Your task to perform on an android device: Go to accessibility settings Image 0: 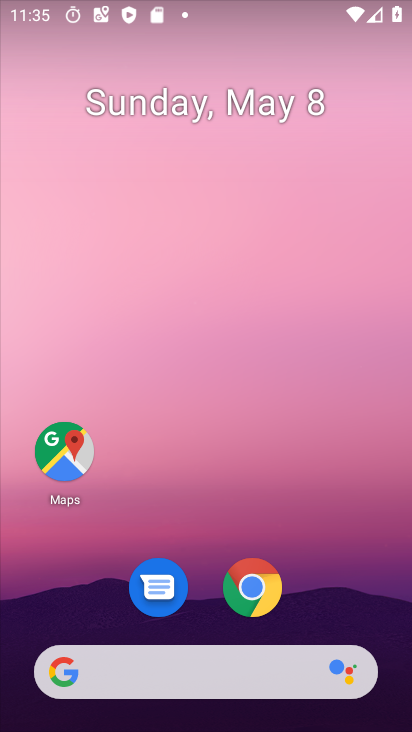
Step 0: drag from (392, 622) to (180, 114)
Your task to perform on an android device: Go to accessibility settings Image 1: 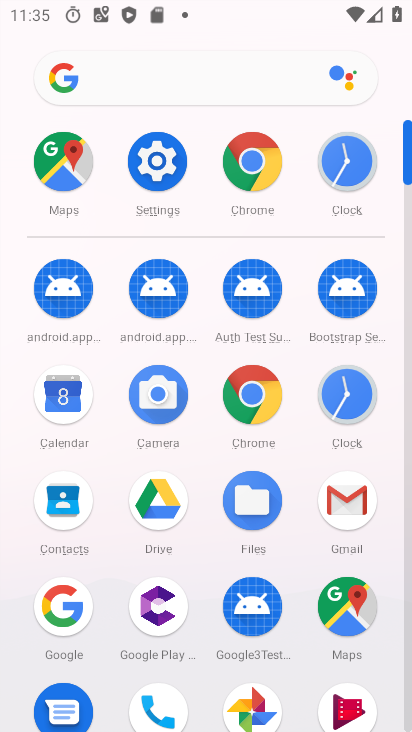
Step 1: click (155, 144)
Your task to perform on an android device: Go to accessibility settings Image 2: 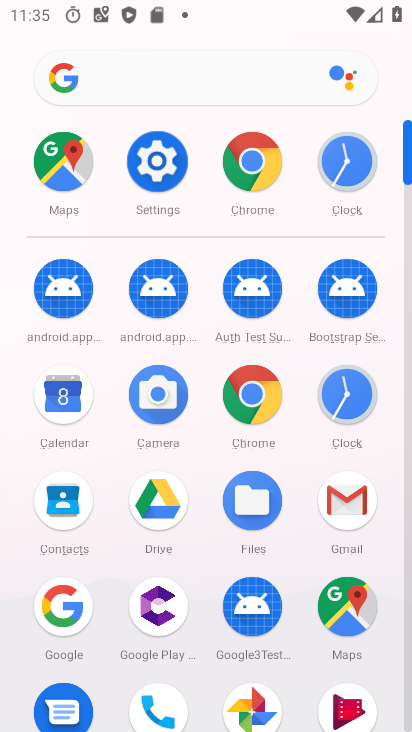
Step 2: click (153, 144)
Your task to perform on an android device: Go to accessibility settings Image 3: 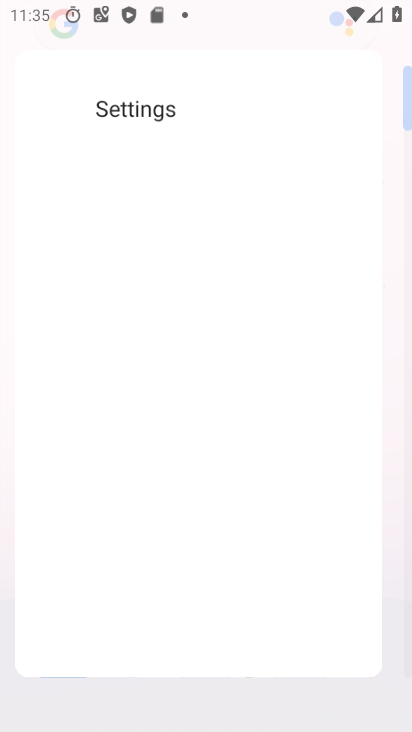
Step 3: click (143, 156)
Your task to perform on an android device: Go to accessibility settings Image 4: 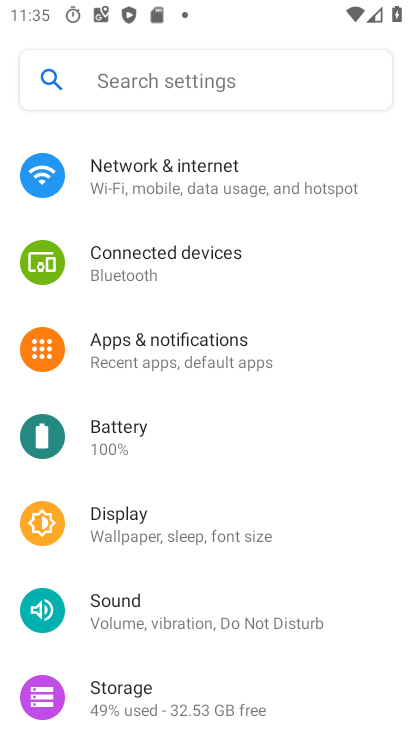
Step 4: click (143, 156)
Your task to perform on an android device: Go to accessibility settings Image 5: 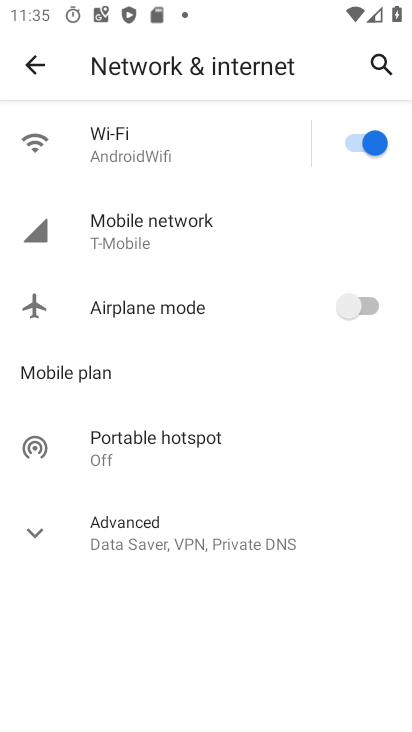
Step 5: click (16, 61)
Your task to perform on an android device: Go to accessibility settings Image 6: 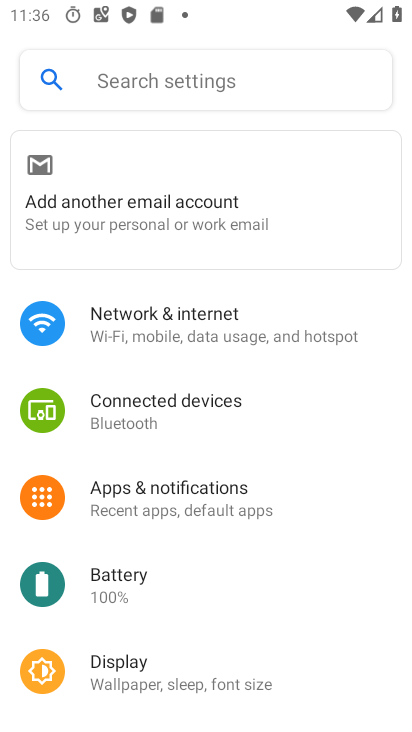
Step 6: drag from (171, 560) to (70, 183)
Your task to perform on an android device: Go to accessibility settings Image 7: 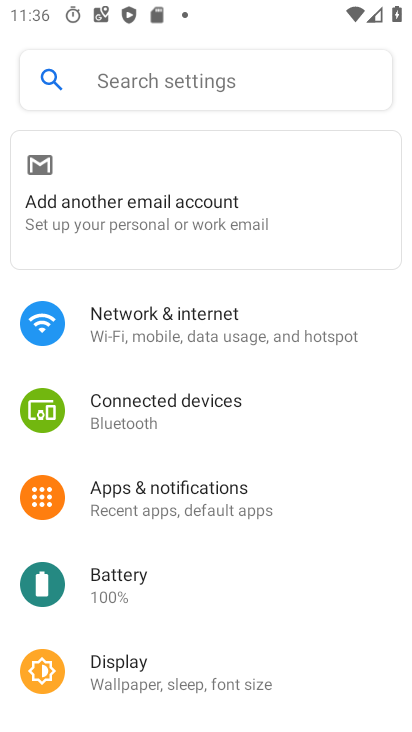
Step 7: drag from (138, 545) to (121, 298)
Your task to perform on an android device: Go to accessibility settings Image 8: 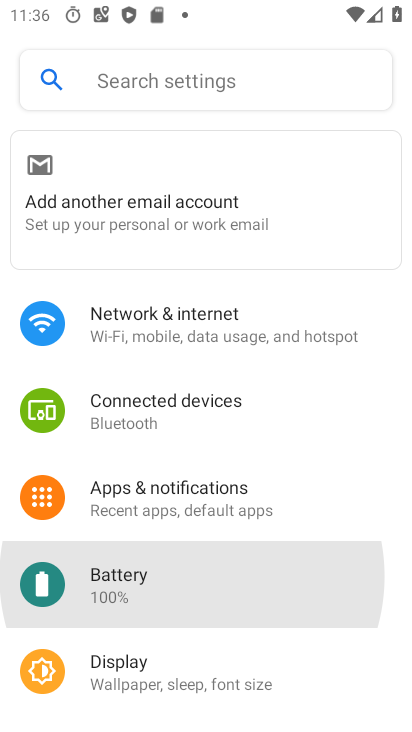
Step 8: drag from (171, 594) to (128, 206)
Your task to perform on an android device: Go to accessibility settings Image 9: 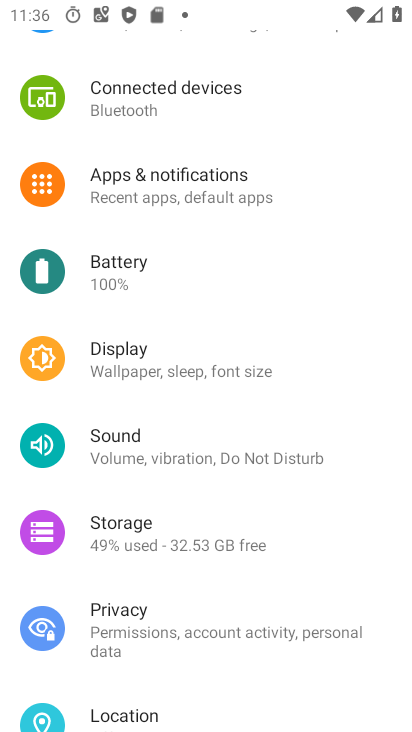
Step 9: drag from (275, 565) to (235, 257)
Your task to perform on an android device: Go to accessibility settings Image 10: 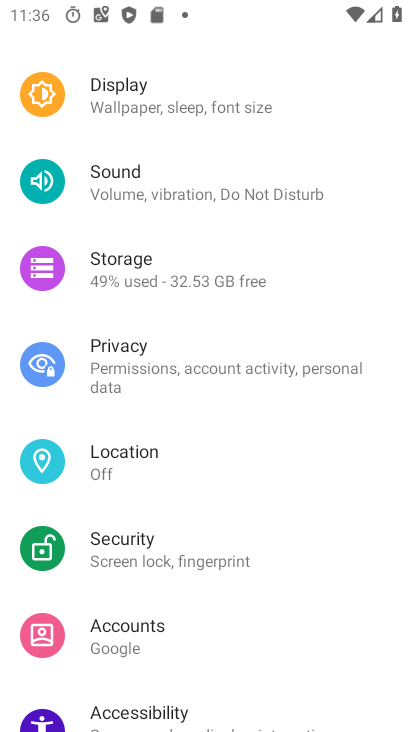
Step 10: drag from (280, 606) to (243, 233)
Your task to perform on an android device: Go to accessibility settings Image 11: 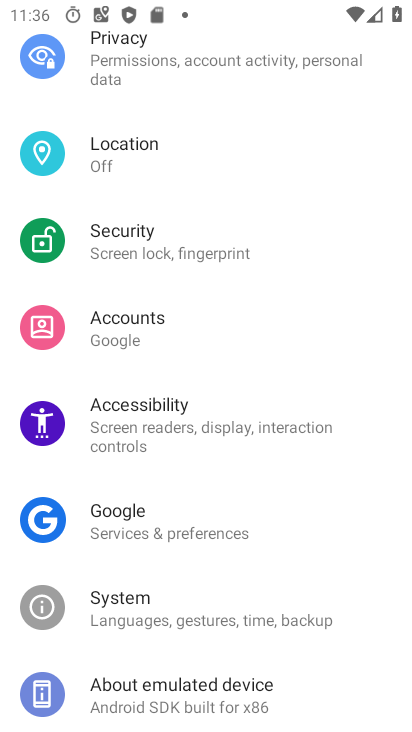
Step 11: drag from (288, 710) to (209, 82)
Your task to perform on an android device: Go to accessibility settings Image 12: 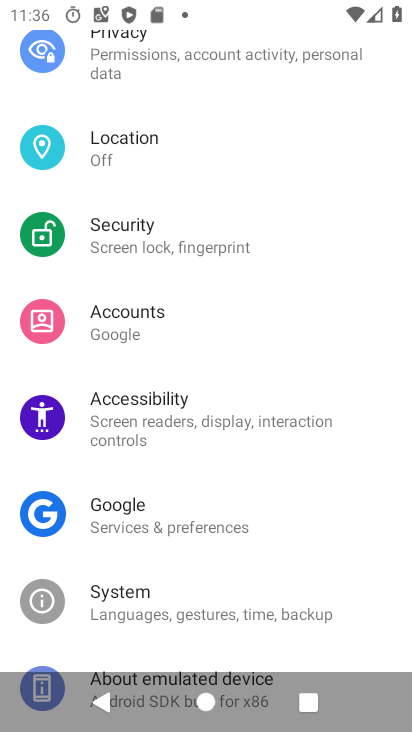
Step 12: drag from (216, 598) to (101, 185)
Your task to perform on an android device: Go to accessibility settings Image 13: 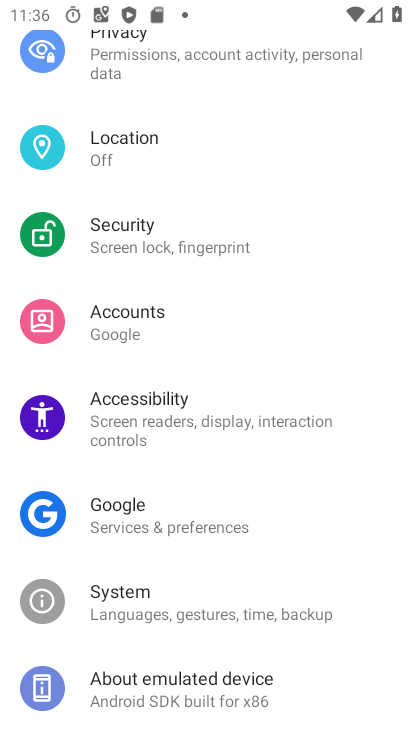
Step 13: click (154, 416)
Your task to perform on an android device: Go to accessibility settings Image 14: 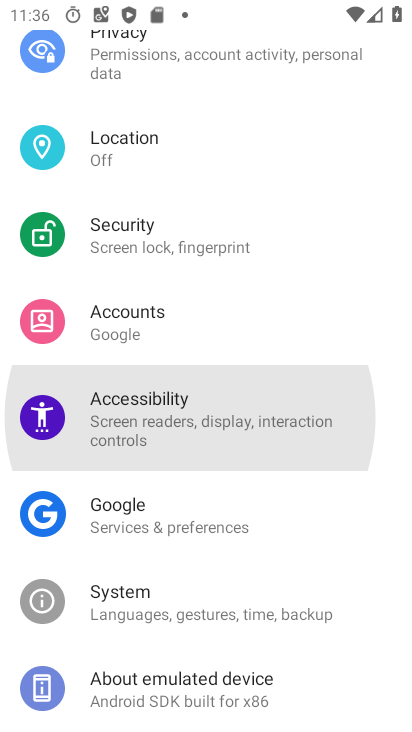
Step 14: click (147, 408)
Your task to perform on an android device: Go to accessibility settings Image 15: 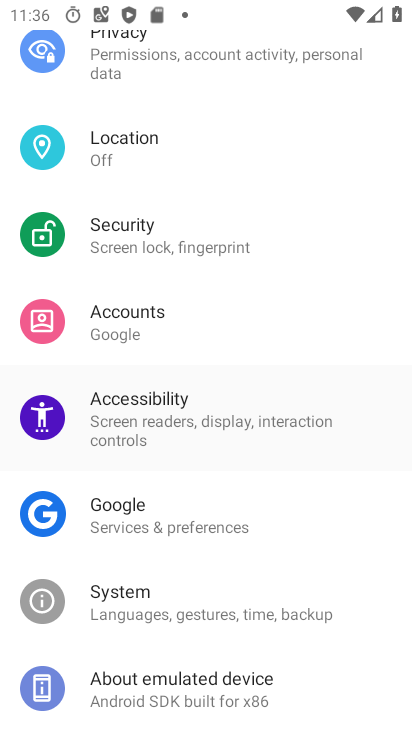
Step 15: click (147, 408)
Your task to perform on an android device: Go to accessibility settings Image 16: 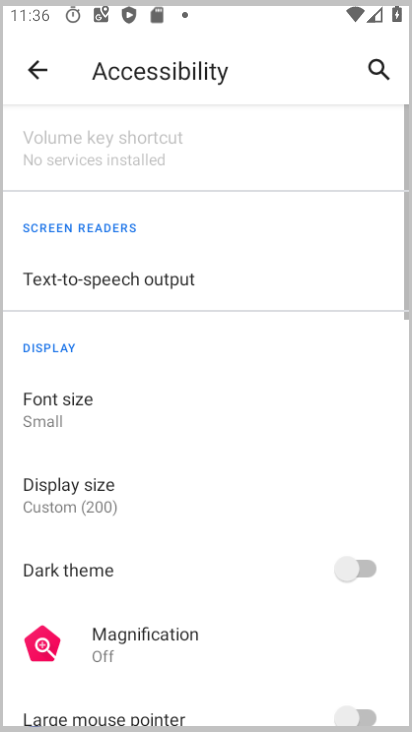
Step 16: click (147, 408)
Your task to perform on an android device: Go to accessibility settings Image 17: 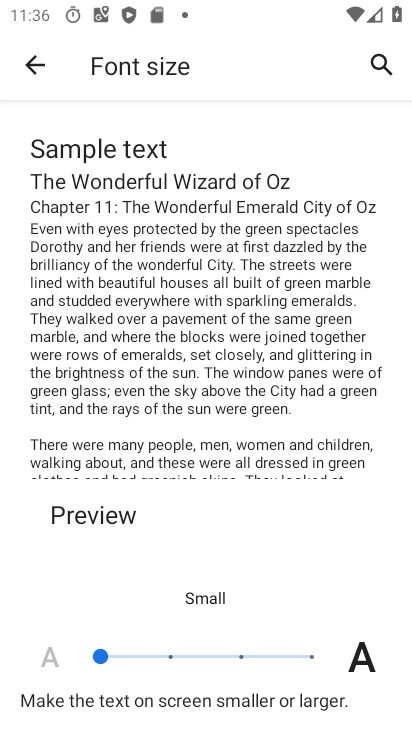
Step 17: click (36, 53)
Your task to perform on an android device: Go to accessibility settings Image 18: 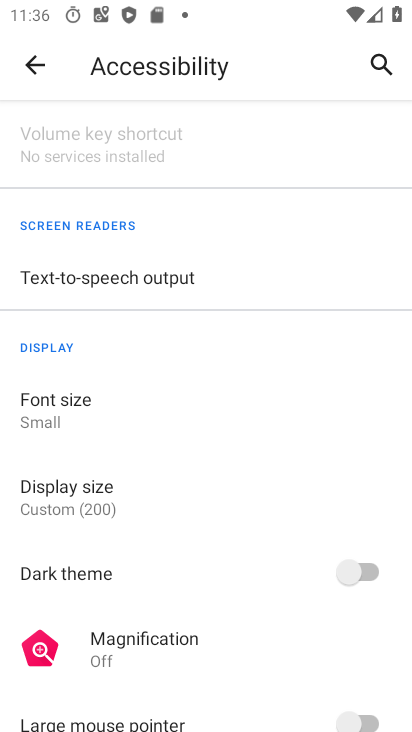
Step 18: click (38, 67)
Your task to perform on an android device: Go to accessibility settings Image 19: 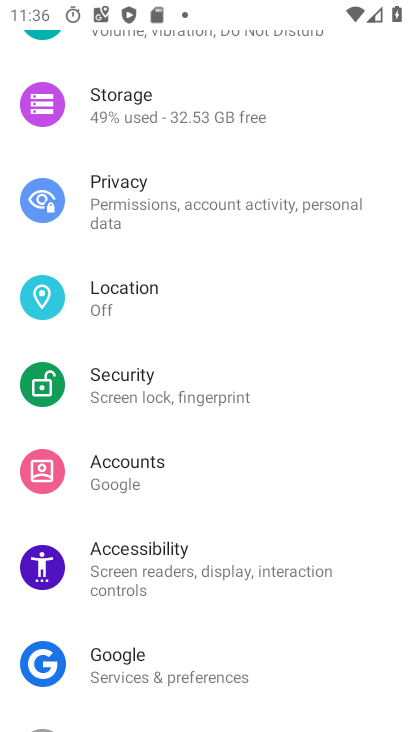
Step 19: task complete